Your task to perform on an android device: Is it going to rain tomorrow? Image 0: 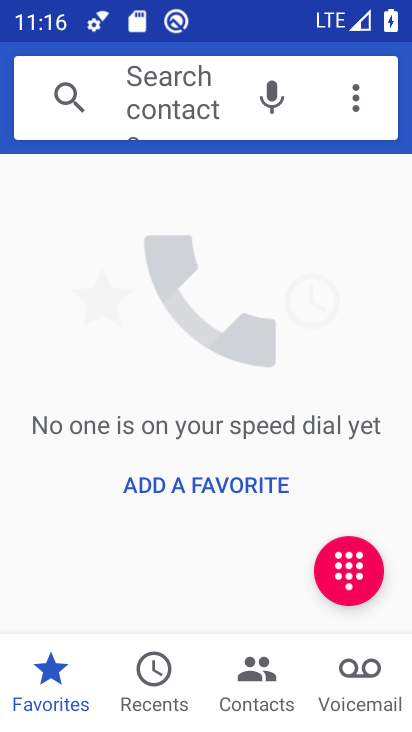
Step 0: press home button
Your task to perform on an android device: Is it going to rain tomorrow? Image 1: 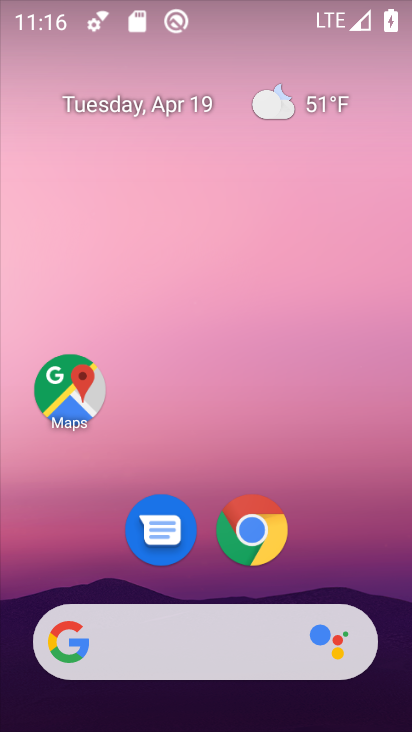
Step 1: drag from (191, 458) to (320, 14)
Your task to perform on an android device: Is it going to rain tomorrow? Image 2: 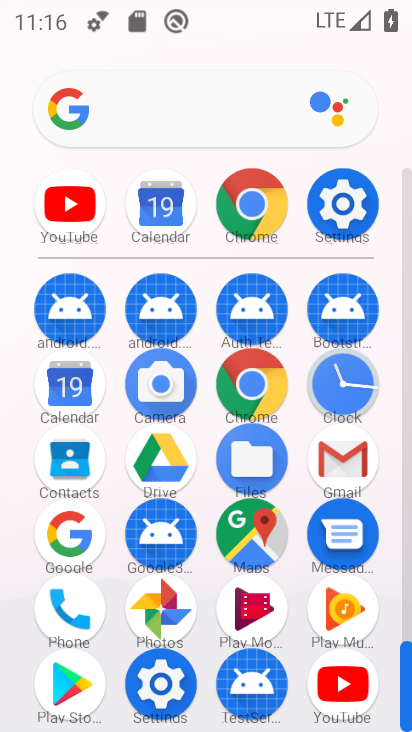
Step 2: press home button
Your task to perform on an android device: Is it going to rain tomorrow? Image 3: 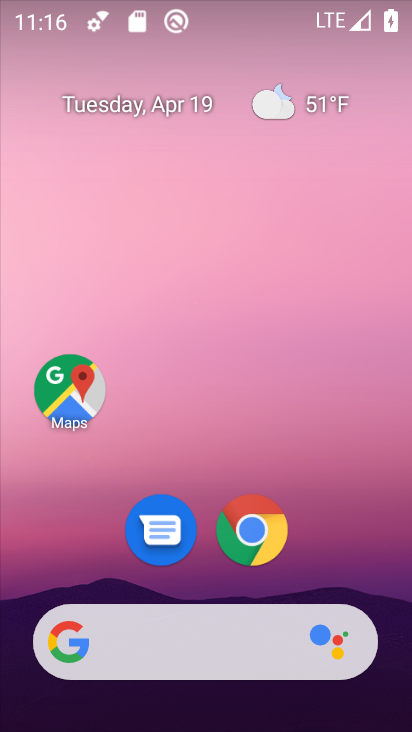
Step 3: click (271, 107)
Your task to perform on an android device: Is it going to rain tomorrow? Image 4: 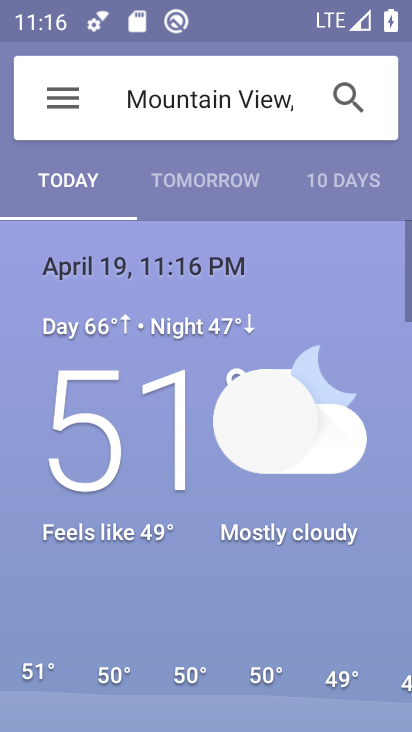
Step 4: click (217, 186)
Your task to perform on an android device: Is it going to rain tomorrow? Image 5: 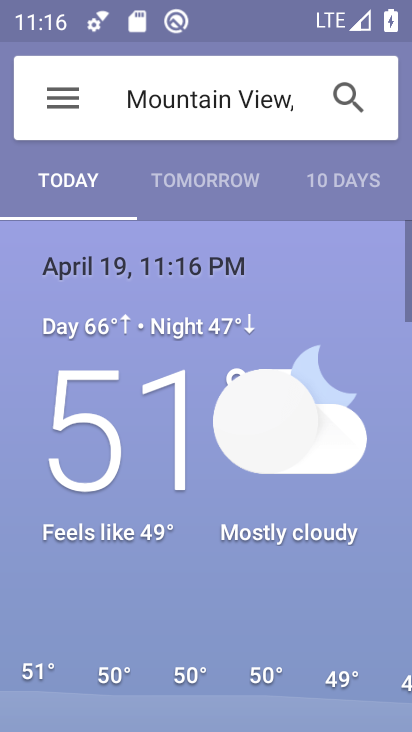
Step 5: click (217, 187)
Your task to perform on an android device: Is it going to rain tomorrow? Image 6: 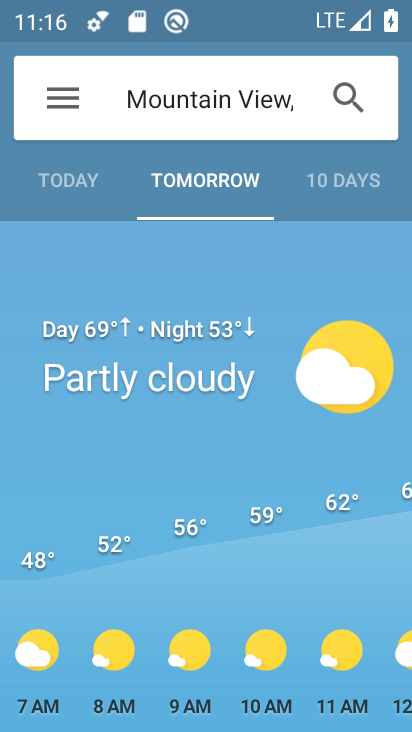
Step 6: task complete